Your task to perform on an android device: Open internet settings Image 0: 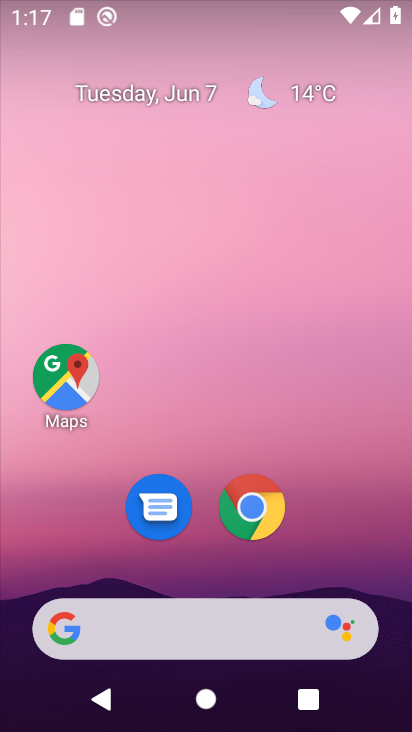
Step 0: drag from (299, 517) to (289, 66)
Your task to perform on an android device: Open internet settings Image 1: 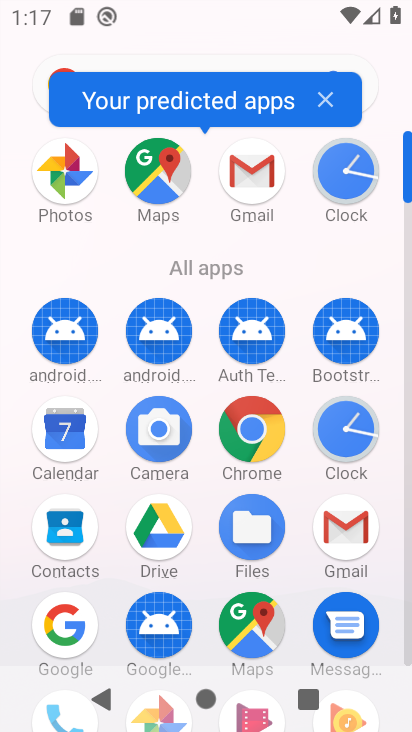
Step 1: drag from (146, 584) to (219, 188)
Your task to perform on an android device: Open internet settings Image 2: 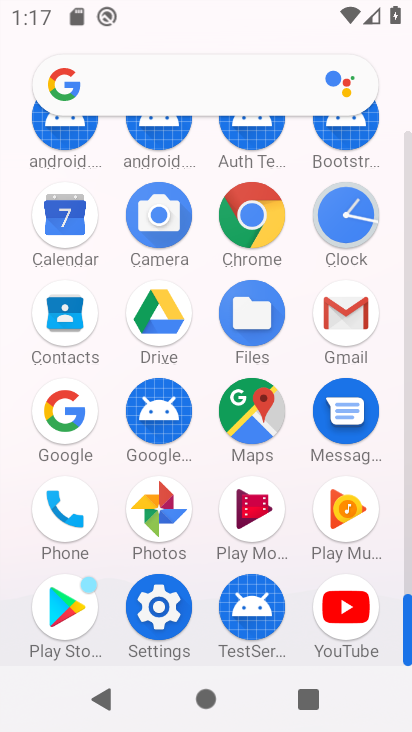
Step 2: click (160, 600)
Your task to perform on an android device: Open internet settings Image 3: 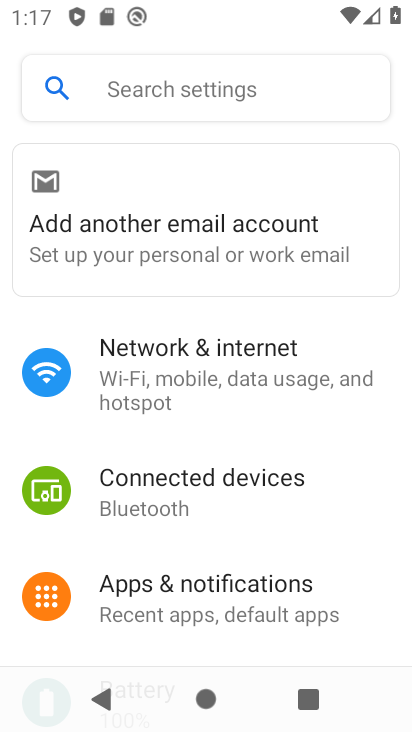
Step 3: click (264, 361)
Your task to perform on an android device: Open internet settings Image 4: 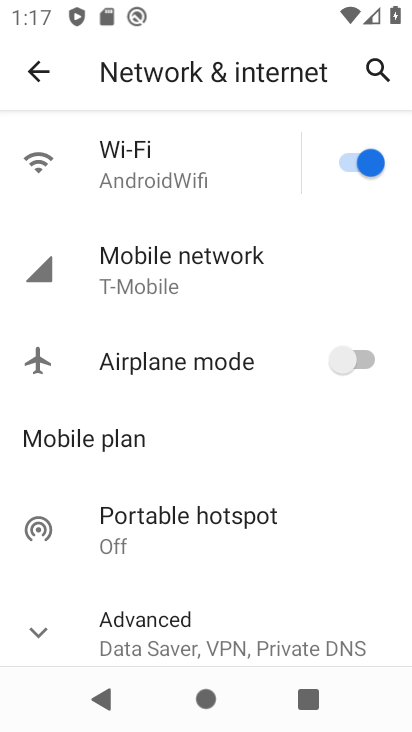
Step 4: task complete